Your task to perform on an android device: Open Google Chrome Image 0: 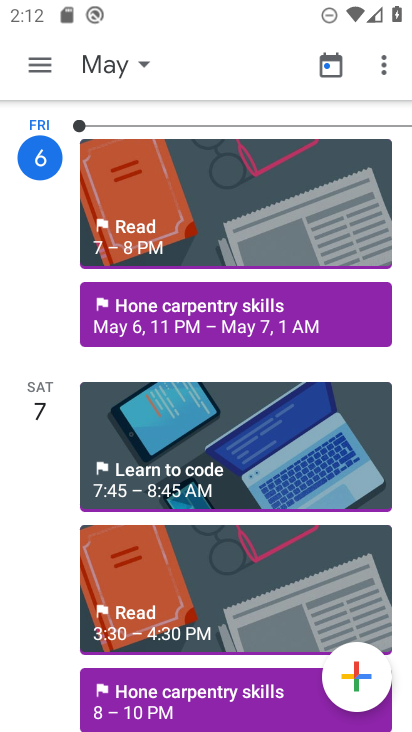
Step 0: press home button
Your task to perform on an android device: Open Google Chrome Image 1: 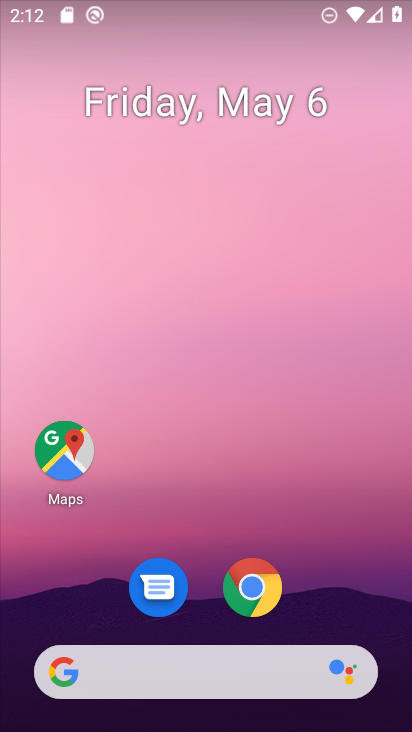
Step 1: click (255, 588)
Your task to perform on an android device: Open Google Chrome Image 2: 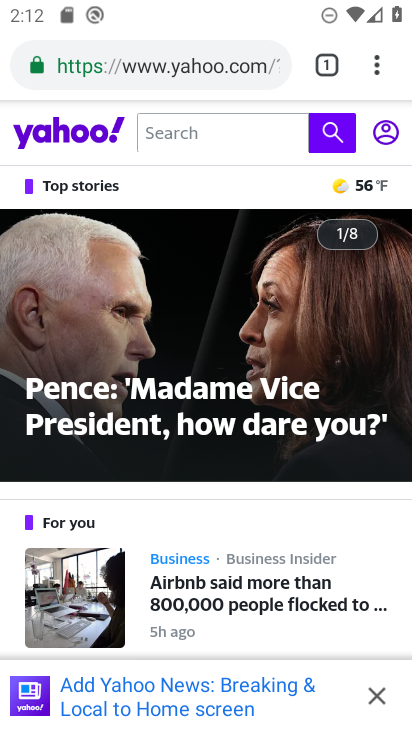
Step 2: task complete